Your task to perform on an android device: Open the phone app and click the voicemail tab. Image 0: 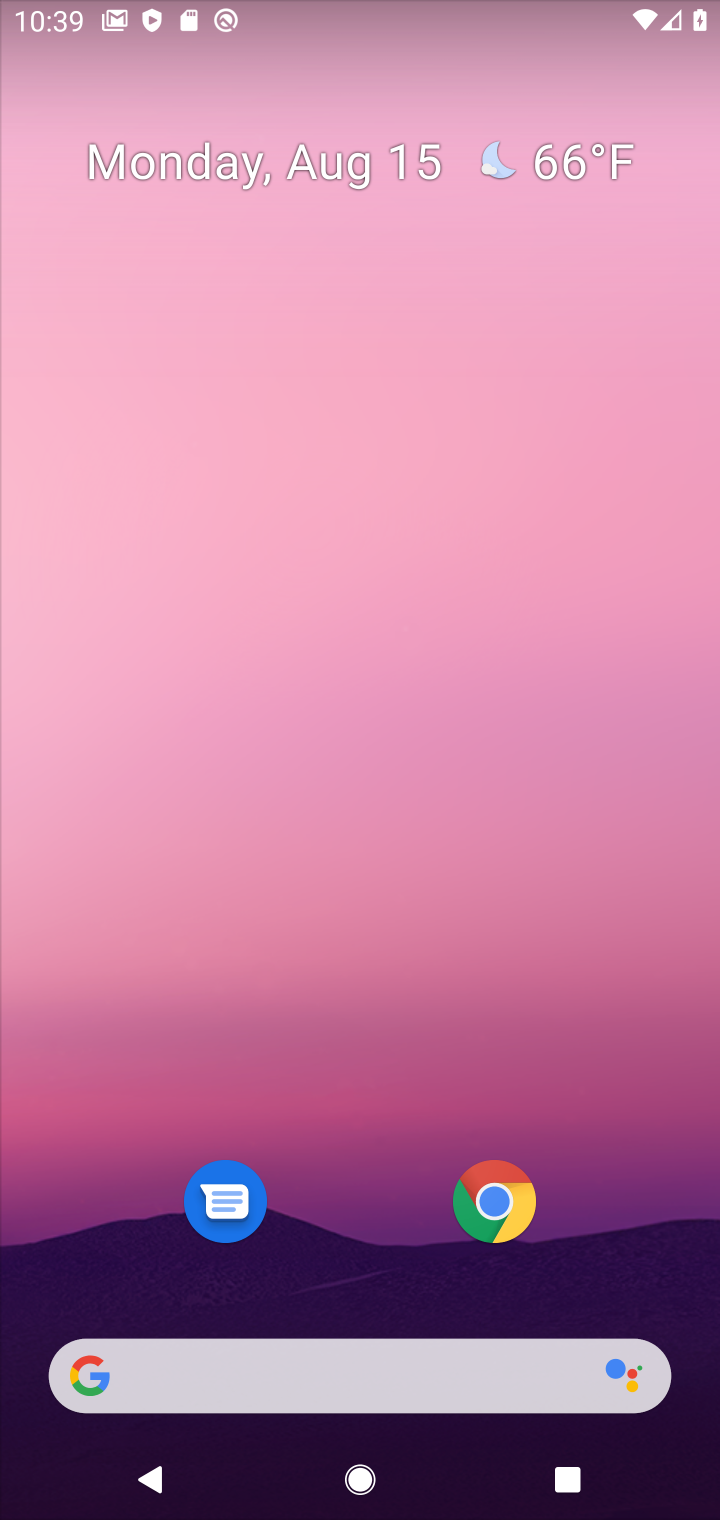
Step 0: drag from (398, 1269) to (565, 306)
Your task to perform on an android device: Open the phone app and click the voicemail tab. Image 1: 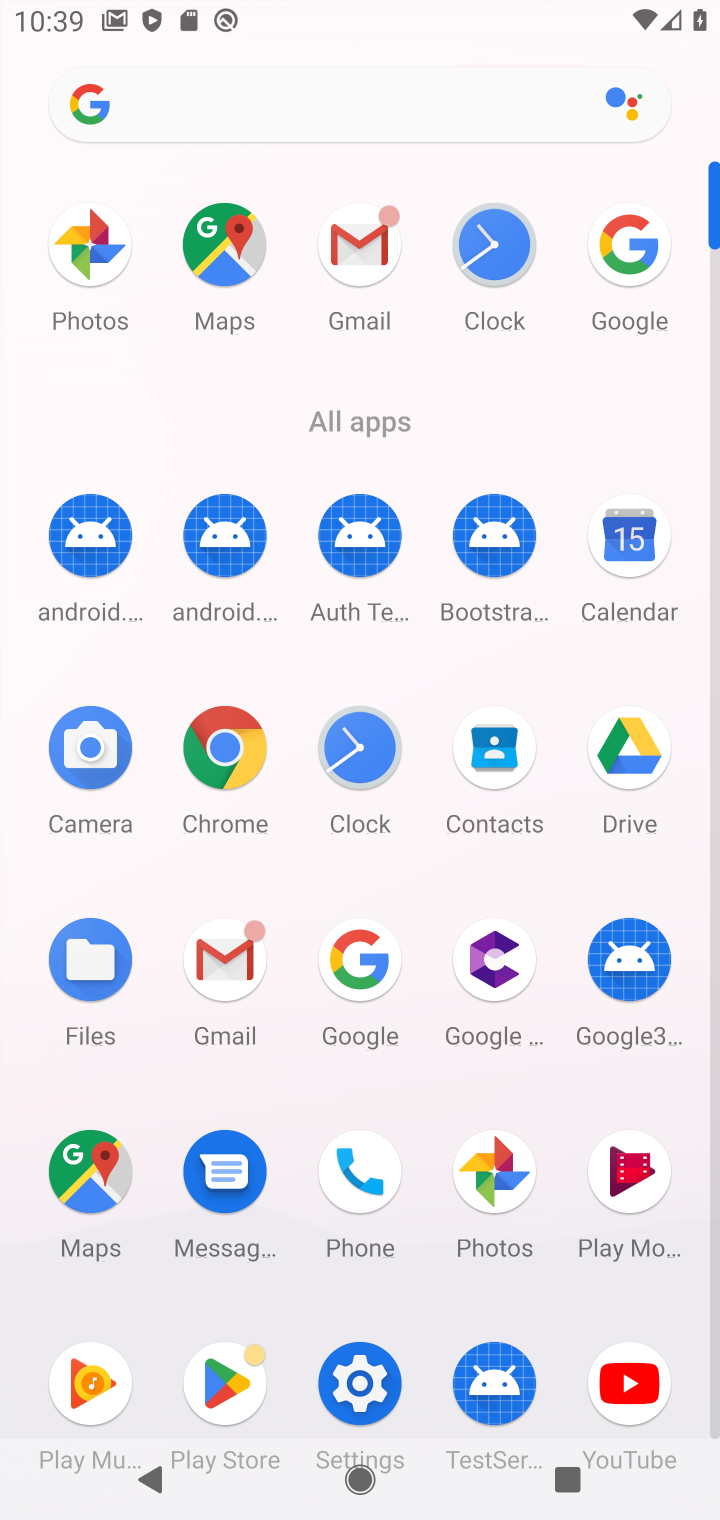
Step 1: click (369, 1175)
Your task to perform on an android device: Open the phone app and click the voicemail tab. Image 2: 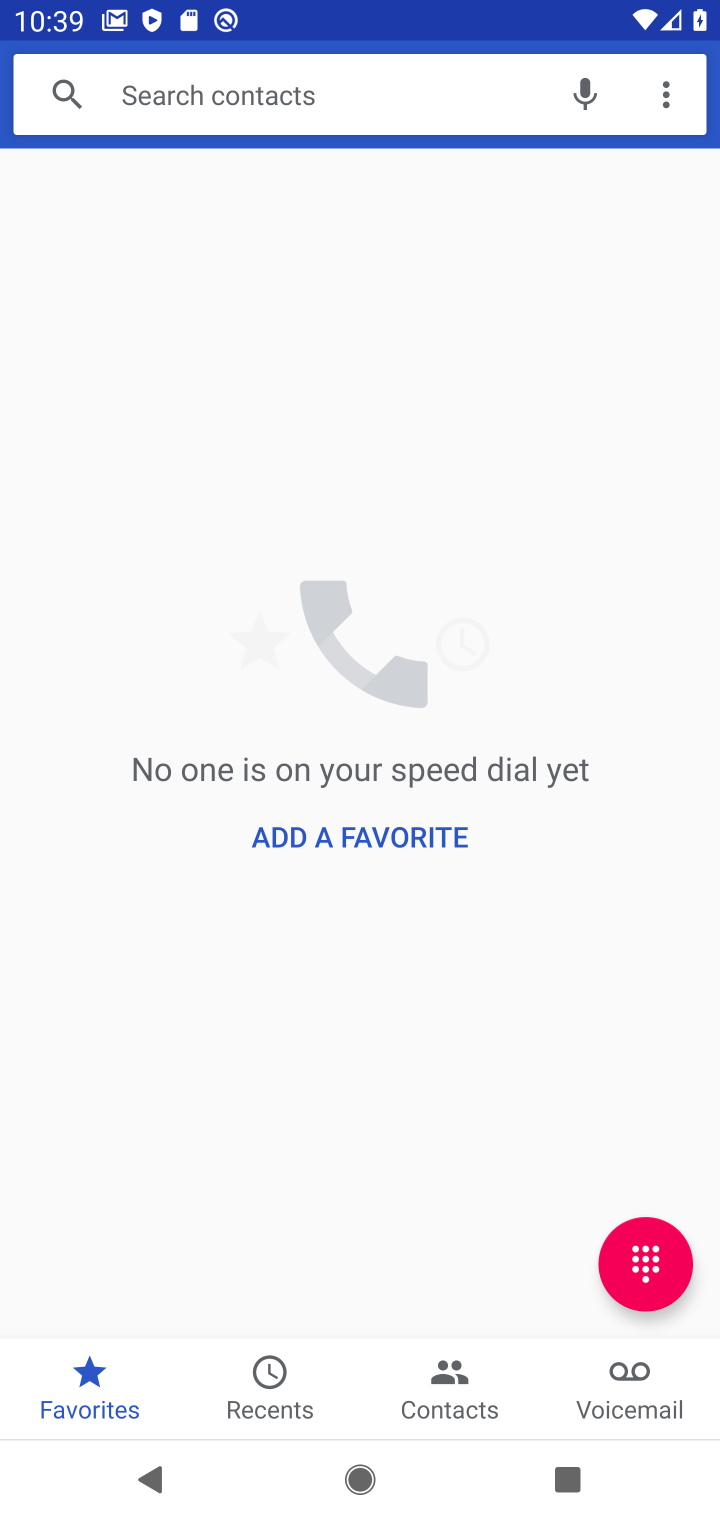
Step 2: click (638, 1383)
Your task to perform on an android device: Open the phone app and click the voicemail tab. Image 3: 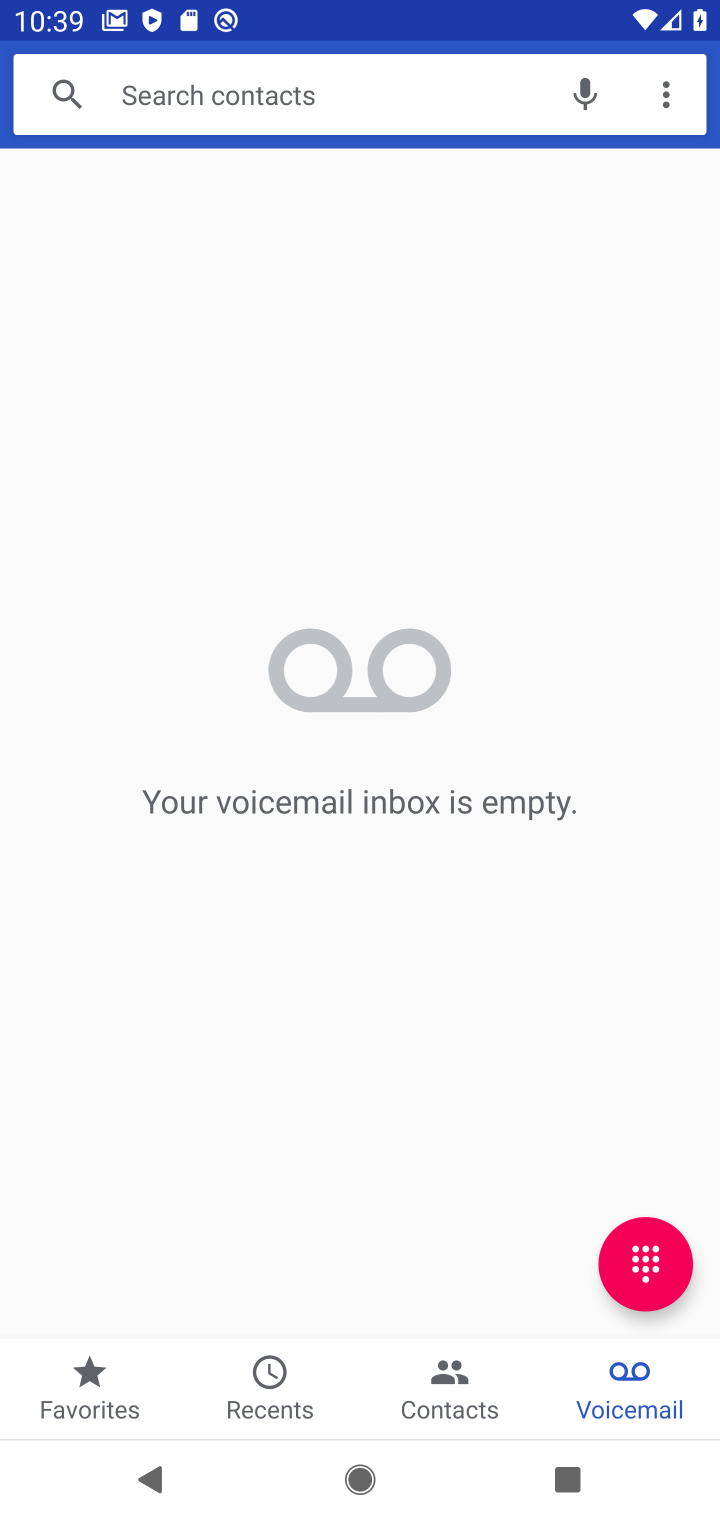
Step 3: task complete